Your task to perform on an android device: Show the shopping cart on amazon. Search for asus rog on amazon, select the first entry, add it to the cart, then select checkout. Image 0: 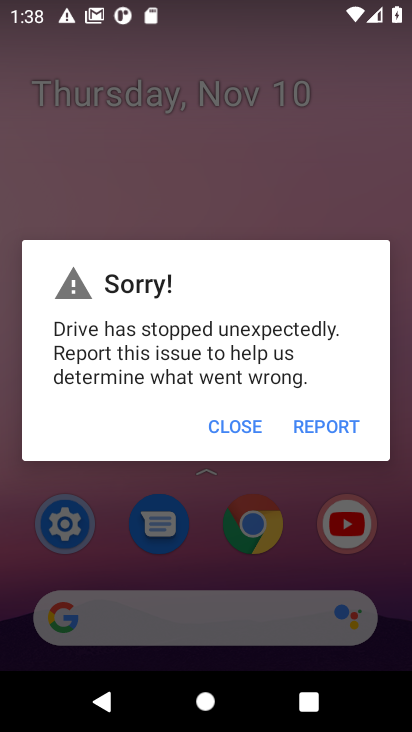
Step 0: click (248, 424)
Your task to perform on an android device: Show the shopping cart on amazon. Search for asus rog on amazon, select the first entry, add it to the cart, then select checkout. Image 1: 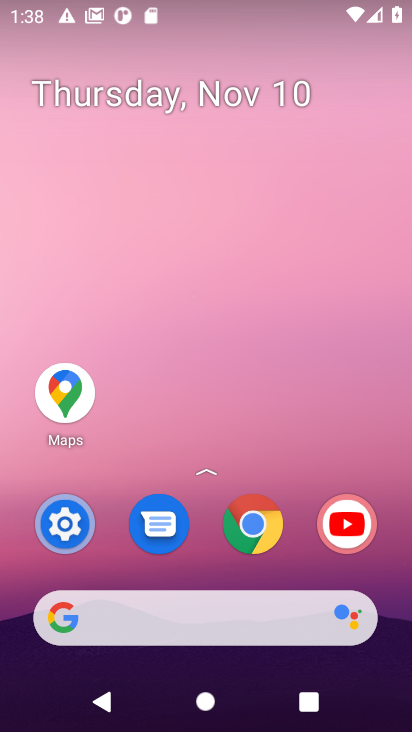
Step 1: click (247, 549)
Your task to perform on an android device: Show the shopping cart on amazon. Search for asus rog on amazon, select the first entry, add it to the cart, then select checkout. Image 2: 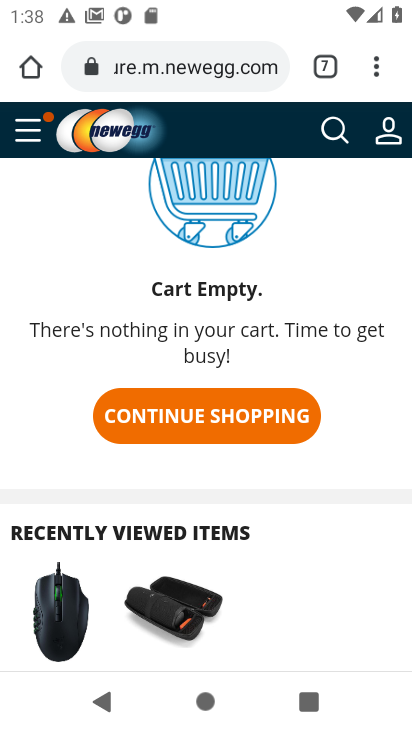
Step 2: click (327, 66)
Your task to perform on an android device: Show the shopping cart on amazon. Search for asus rog on amazon, select the first entry, add it to the cart, then select checkout. Image 3: 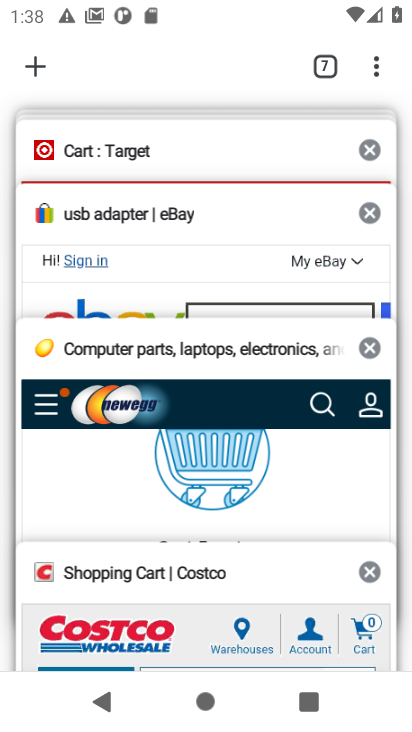
Step 3: drag from (281, 149) to (318, 339)
Your task to perform on an android device: Show the shopping cart on amazon. Search for asus rog on amazon, select the first entry, add it to the cart, then select checkout. Image 4: 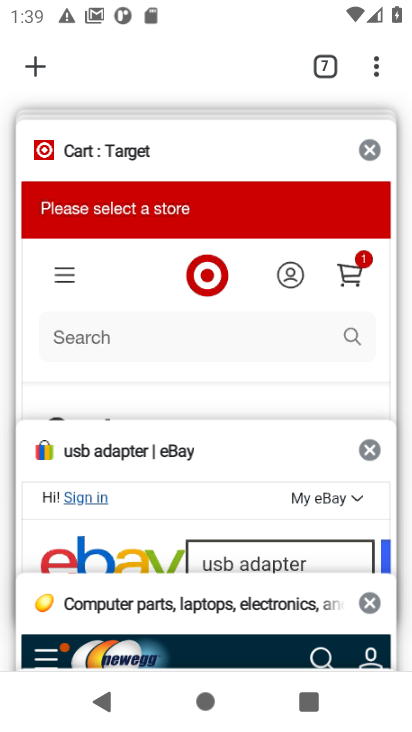
Step 4: drag from (321, 143) to (341, 323)
Your task to perform on an android device: Show the shopping cart on amazon. Search for asus rog on amazon, select the first entry, add it to the cart, then select checkout. Image 5: 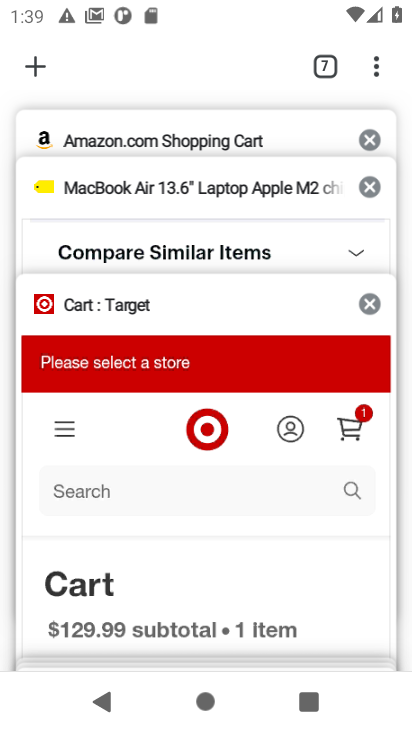
Step 5: click (246, 129)
Your task to perform on an android device: Show the shopping cart on amazon. Search for asus rog on amazon, select the first entry, add it to the cart, then select checkout. Image 6: 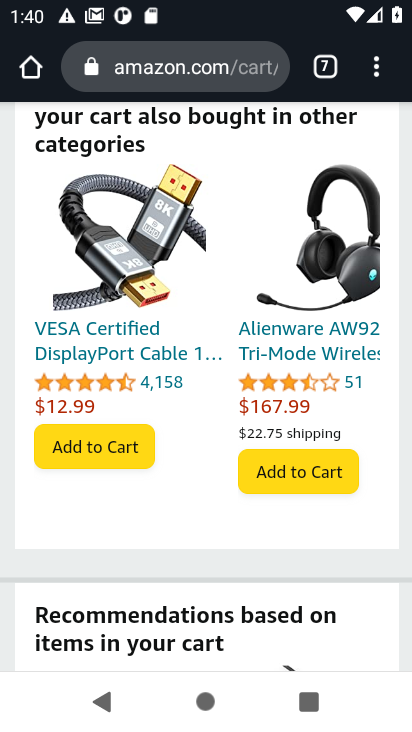
Step 6: drag from (206, 152) to (42, 725)
Your task to perform on an android device: Show the shopping cart on amazon. Search for asus rog on amazon, select the first entry, add it to the cart, then select checkout. Image 7: 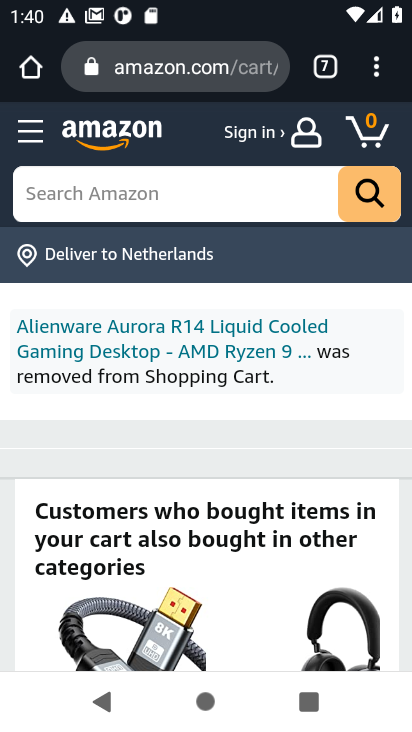
Step 7: click (144, 187)
Your task to perform on an android device: Show the shopping cart on amazon. Search for asus rog on amazon, select the first entry, add it to the cart, then select checkout. Image 8: 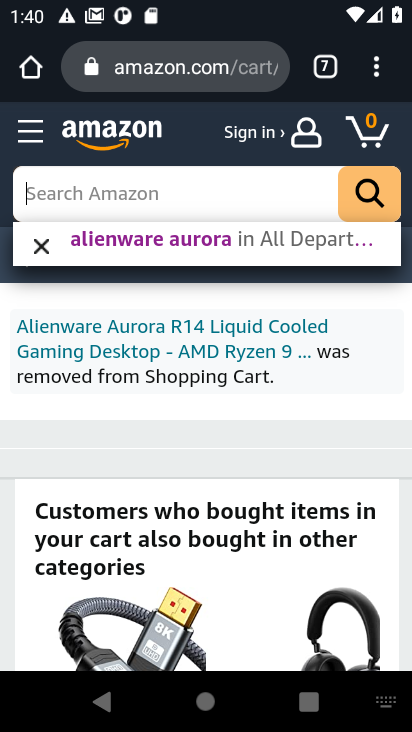
Step 8: type " asus rog"
Your task to perform on an android device: Show the shopping cart on amazon. Search for asus rog on amazon, select the first entry, add it to the cart, then select checkout. Image 9: 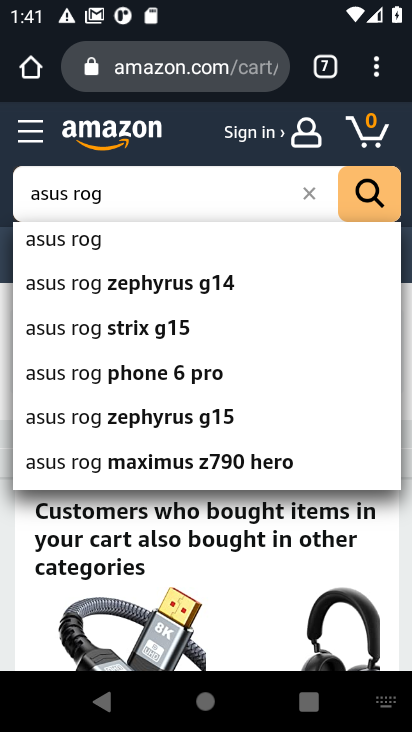
Step 9: click (361, 186)
Your task to perform on an android device: Show the shopping cart on amazon. Search for asus rog on amazon, select the first entry, add it to the cart, then select checkout. Image 10: 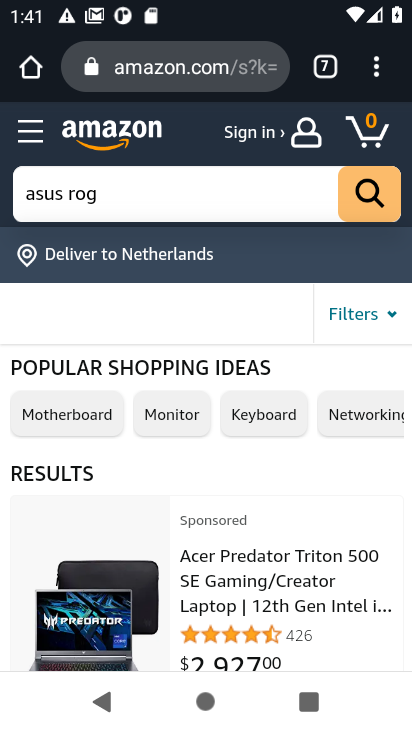
Step 10: drag from (194, 557) to (344, 82)
Your task to perform on an android device: Show the shopping cart on amazon. Search for asus rog on amazon, select the first entry, add it to the cart, then select checkout. Image 11: 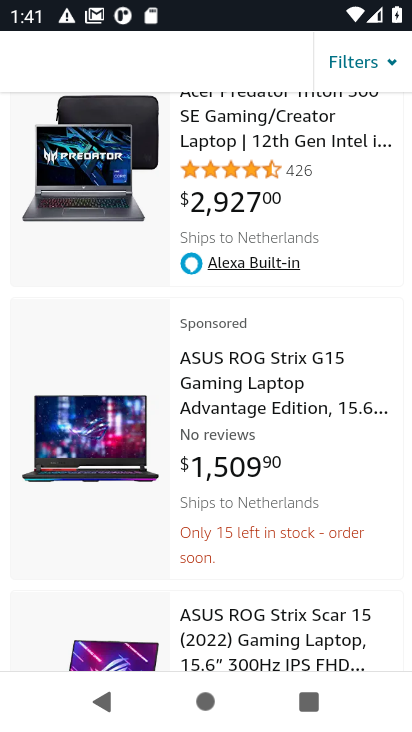
Step 11: click (256, 361)
Your task to perform on an android device: Show the shopping cart on amazon. Search for asus rog on amazon, select the first entry, add it to the cart, then select checkout. Image 12: 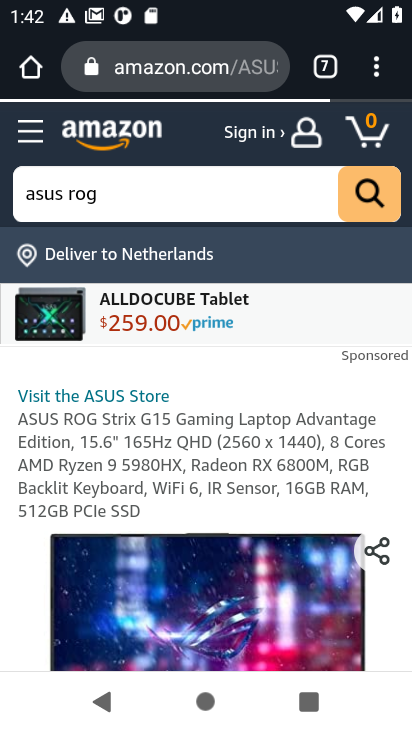
Step 12: drag from (216, 478) to (311, 6)
Your task to perform on an android device: Show the shopping cart on amazon. Search for asus rog on amazon, select the first entry, add it to the cart, then select checkout. Image 13: 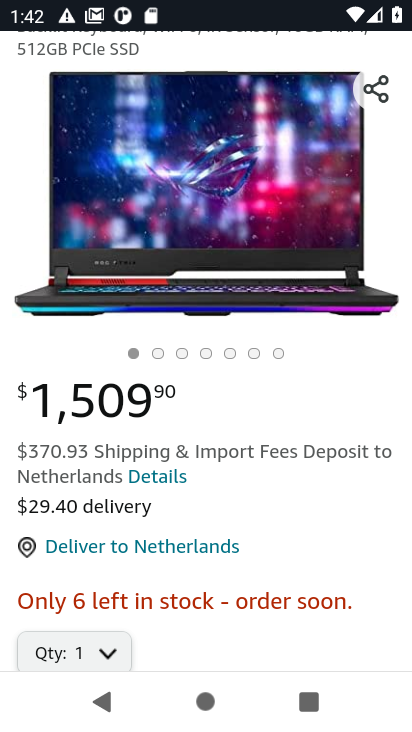
Step 13: drag from (157, 548) to (243, 139)
Your task to perform on an android device: Show the shopping cart on amazon. Search for asus rog on amazon, select the first entry, add it to the cart, then select checkout. Image 14: 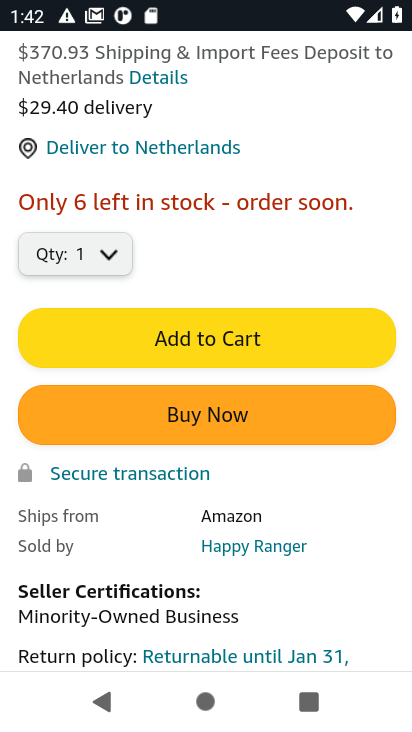
Step 14: click (153, 323)
Your task to perform on an android device: Show the shopping cart on amazon. Search for asus rog on amazon, select the first entry, add it to the cart, then select checkout. Image 15: 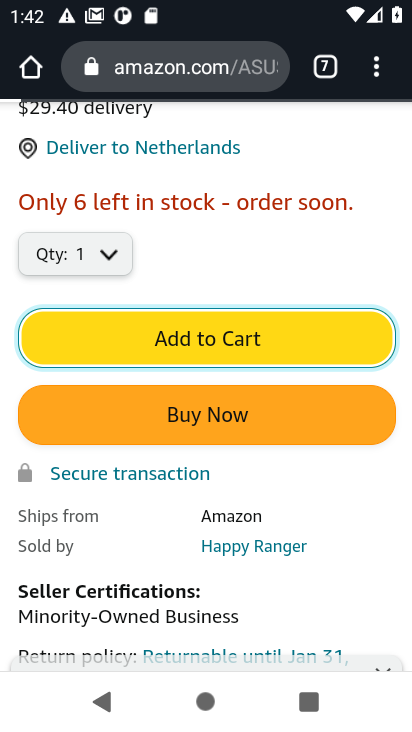
Step 15: click (189, 342)
Your task to perform on an android device: Show the shopping cart on amazon. Search for asus rog on amazon, select the first entry, add it to the cart, then select checkout. Image 16: 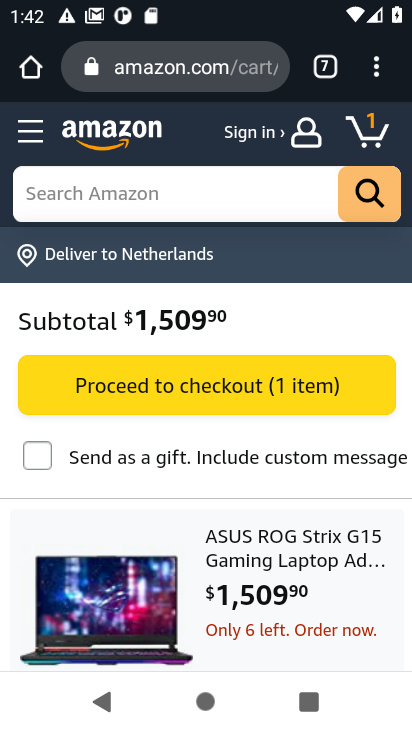
Step 16: task complete